Your task to perform on an android device: open app "PUBG MOBILE" Image 0: 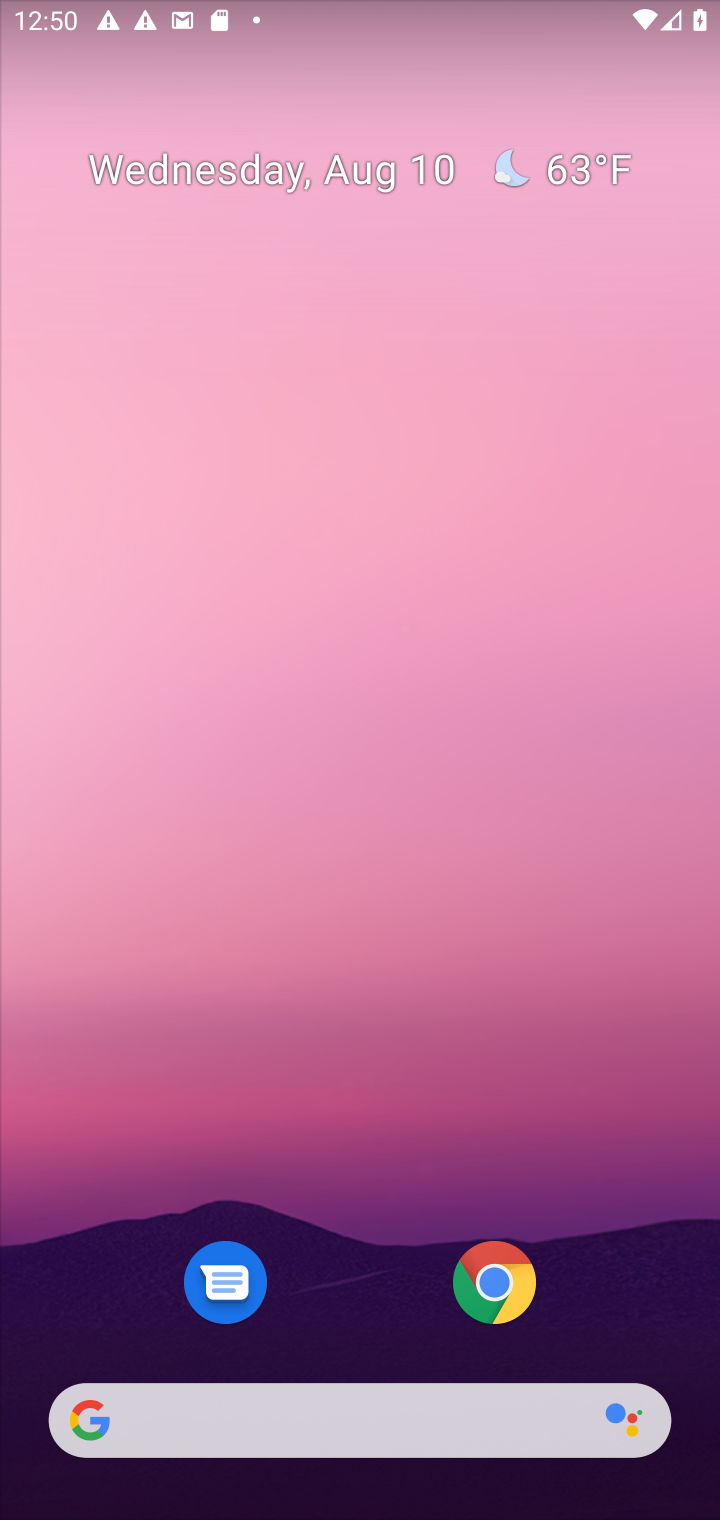
Step 0: drag from (375, 1363) to (288, 535)
Your task to perform on an android device: open app "PUBG MOBILE" Image 1: 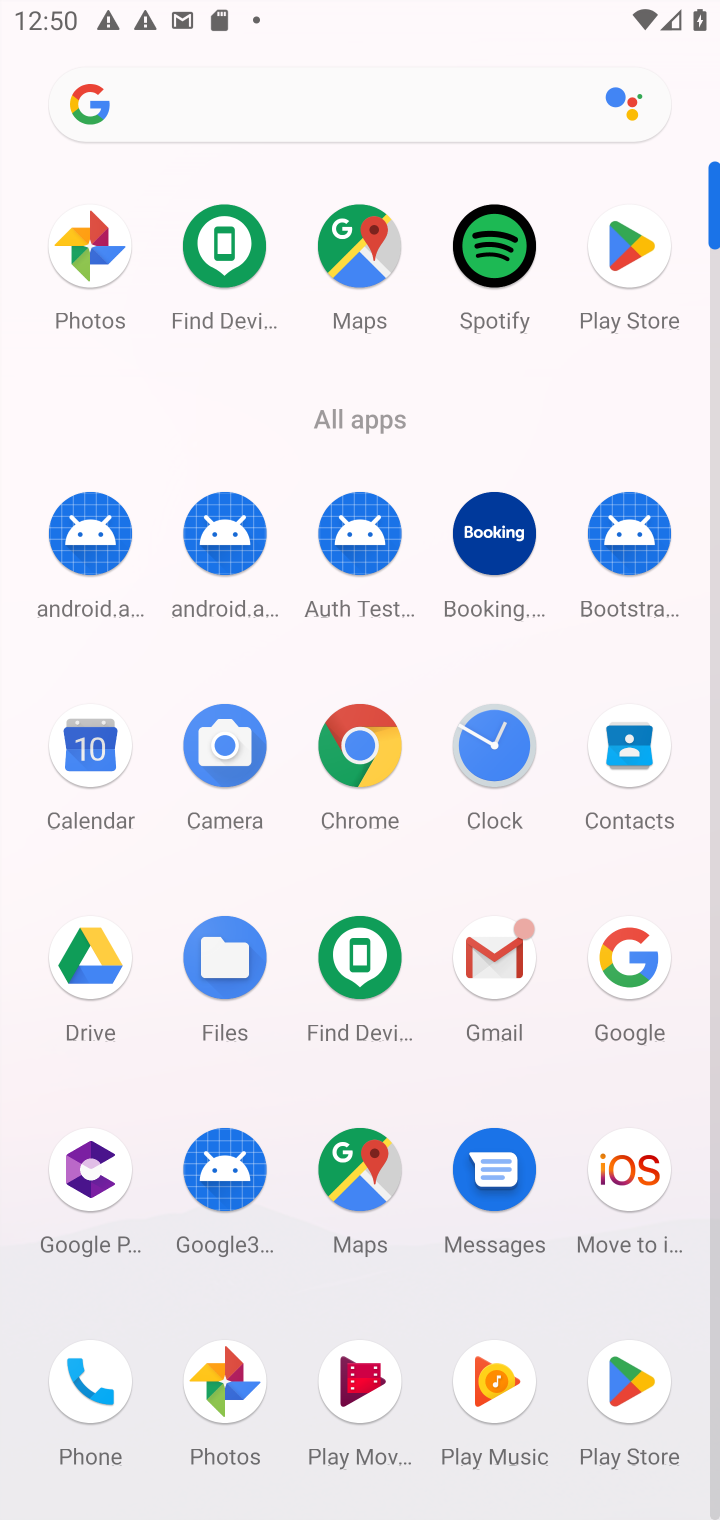
Step 1: click (355, 754)
Your task to perform on an android device: open app "PUBG MOBILE" Image 2: 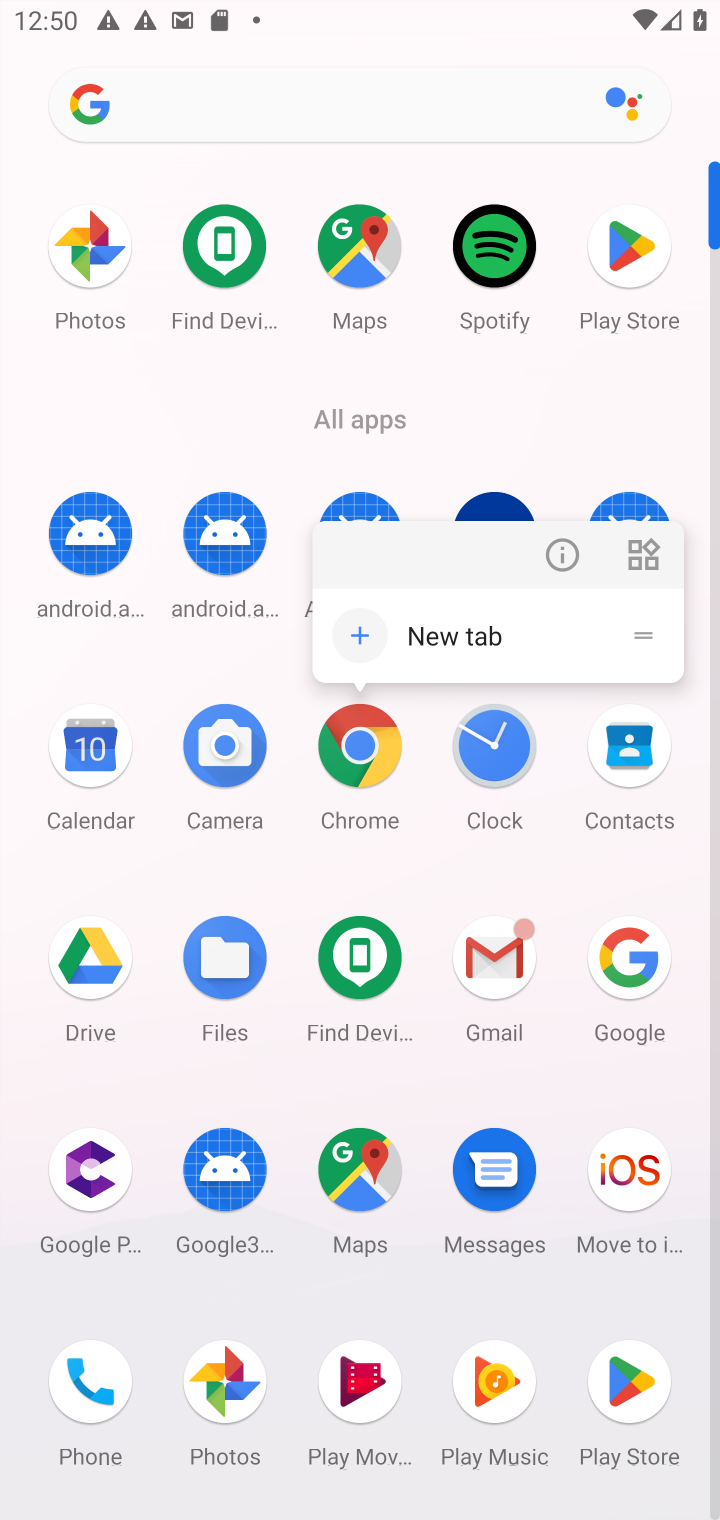
Step 2: press home button
Your task to perform on an android device: open app "PUBG MOBILE" Image 3: 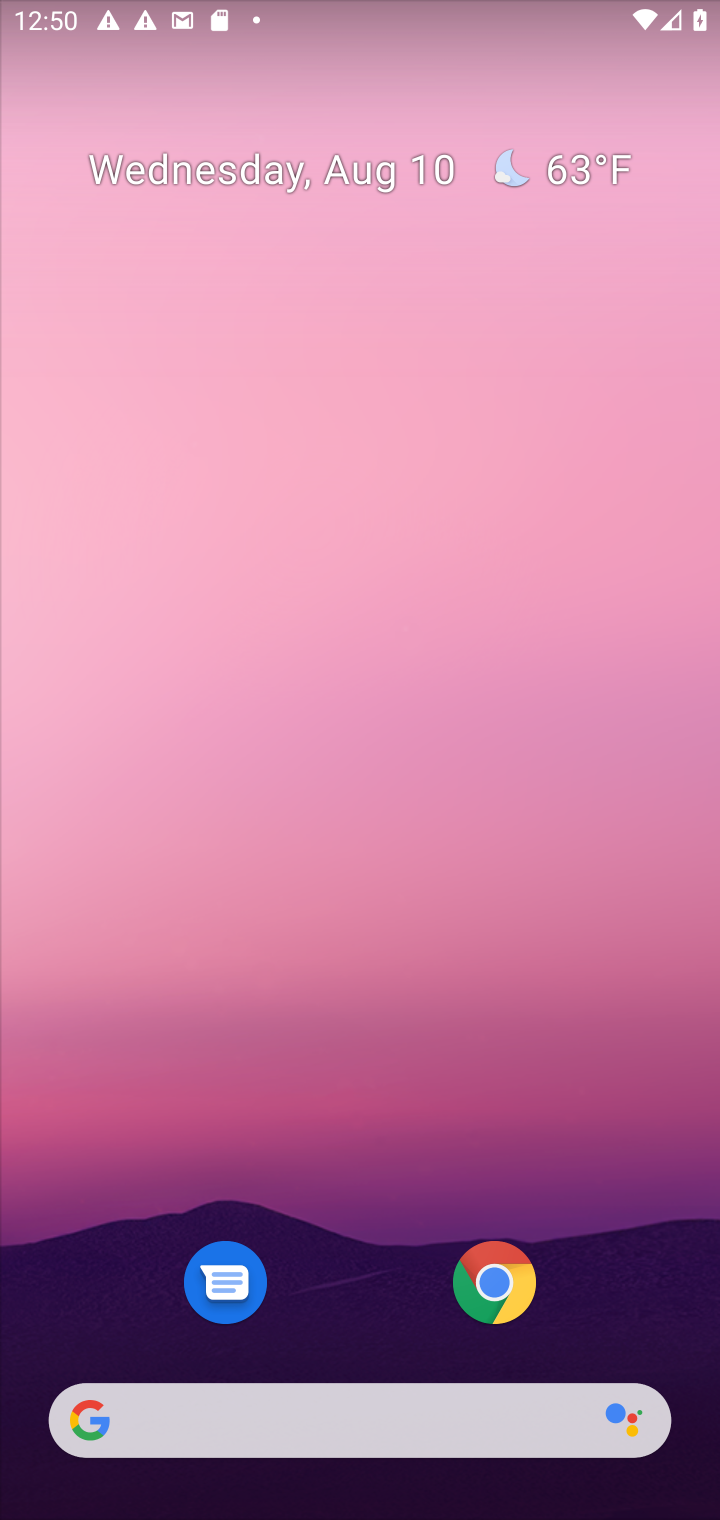
Step 3: drag from (325, 1360) to (299, 379)
Your task to perform on an android device: open app "PUBG MOBILE" Image 4: 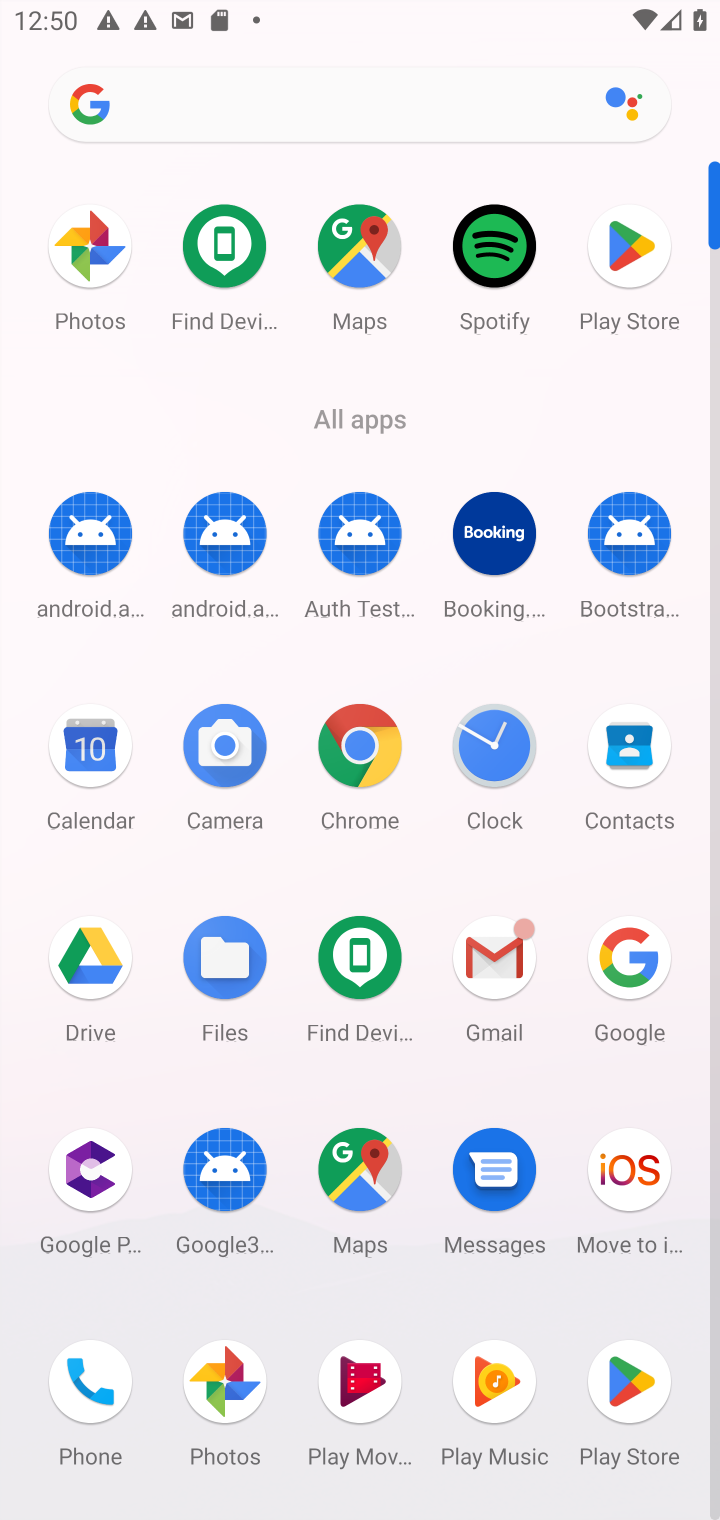
Step 4: drag from (244, 1251) to (351, 242)
Your task to perform on an android device: open app "PUBG MOBILE" Image 5: 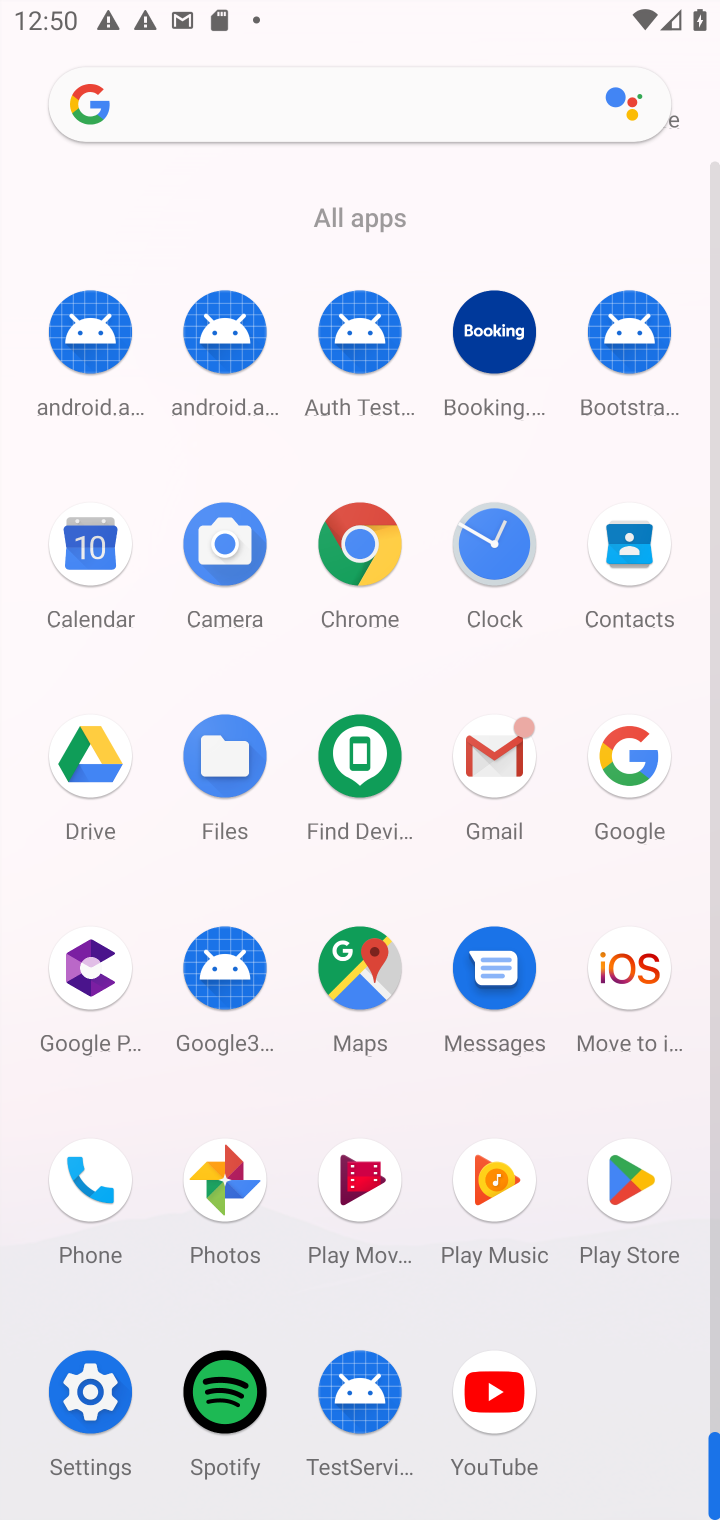
Step 5: click (620, 1144)
Your task to perform on an android device: open app "PUBG MOBILE" Image 6: 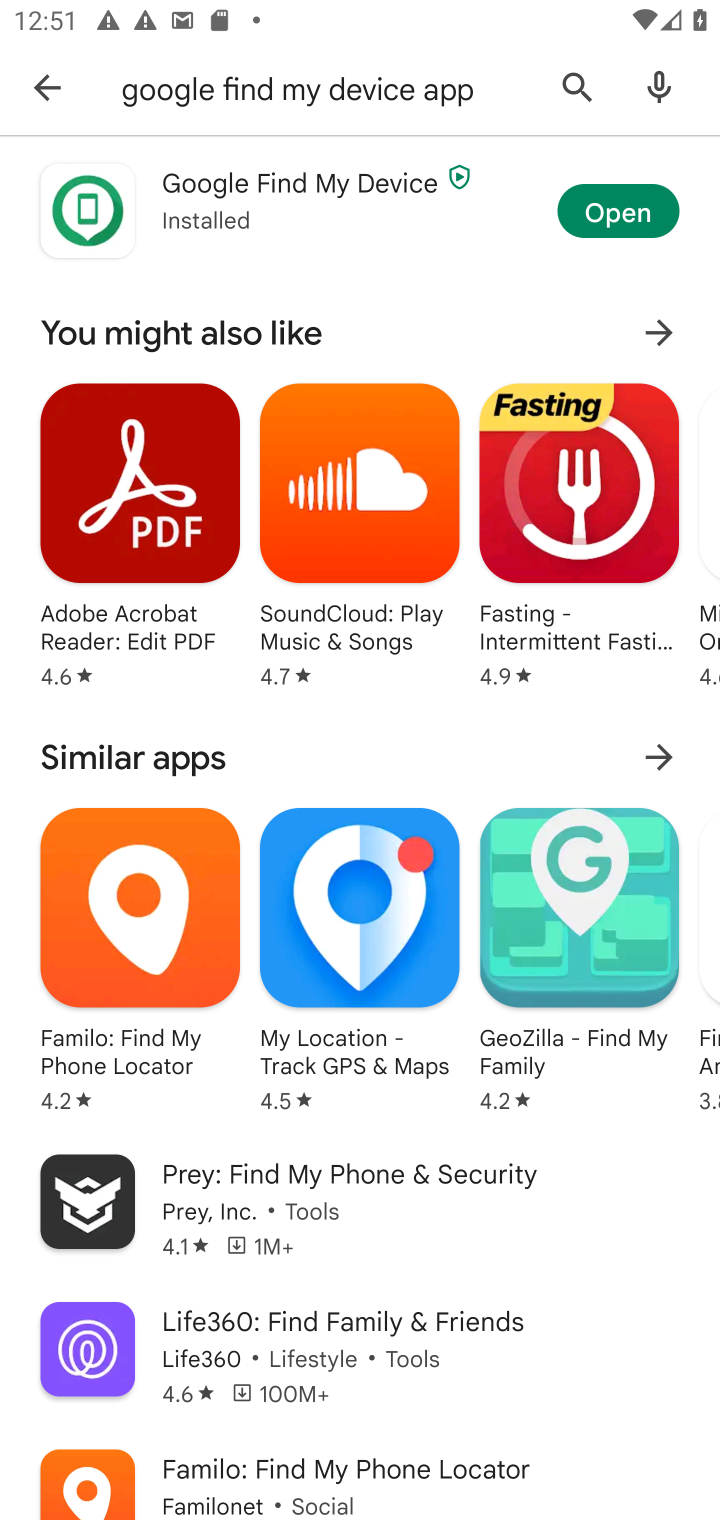
Step 6: click (44, 89)
Your task to perform on an android device: open app "PUBG MOBILE" Image 7: 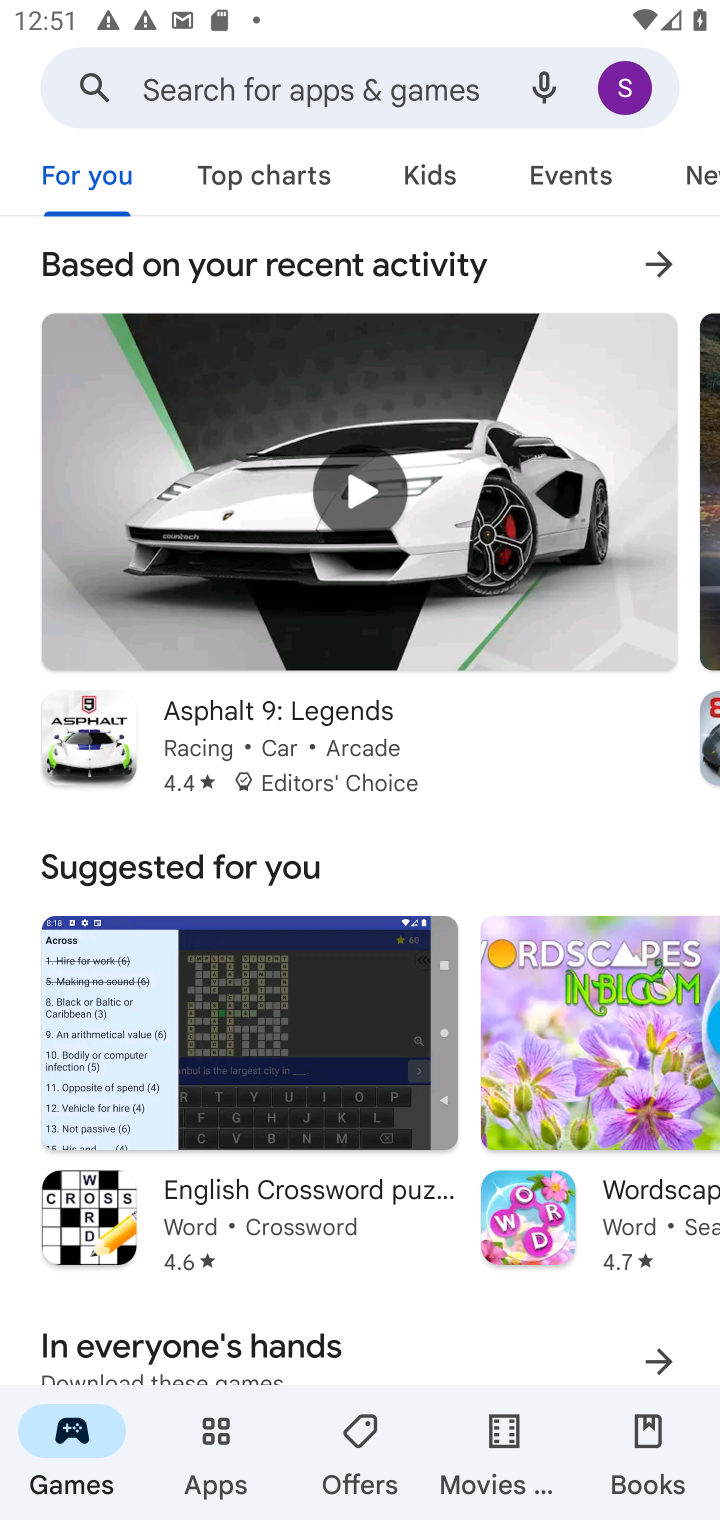
Step 7: click (343, 89)
Your task to perform on an android device: open app "PUBG MOBILE" Image 8: 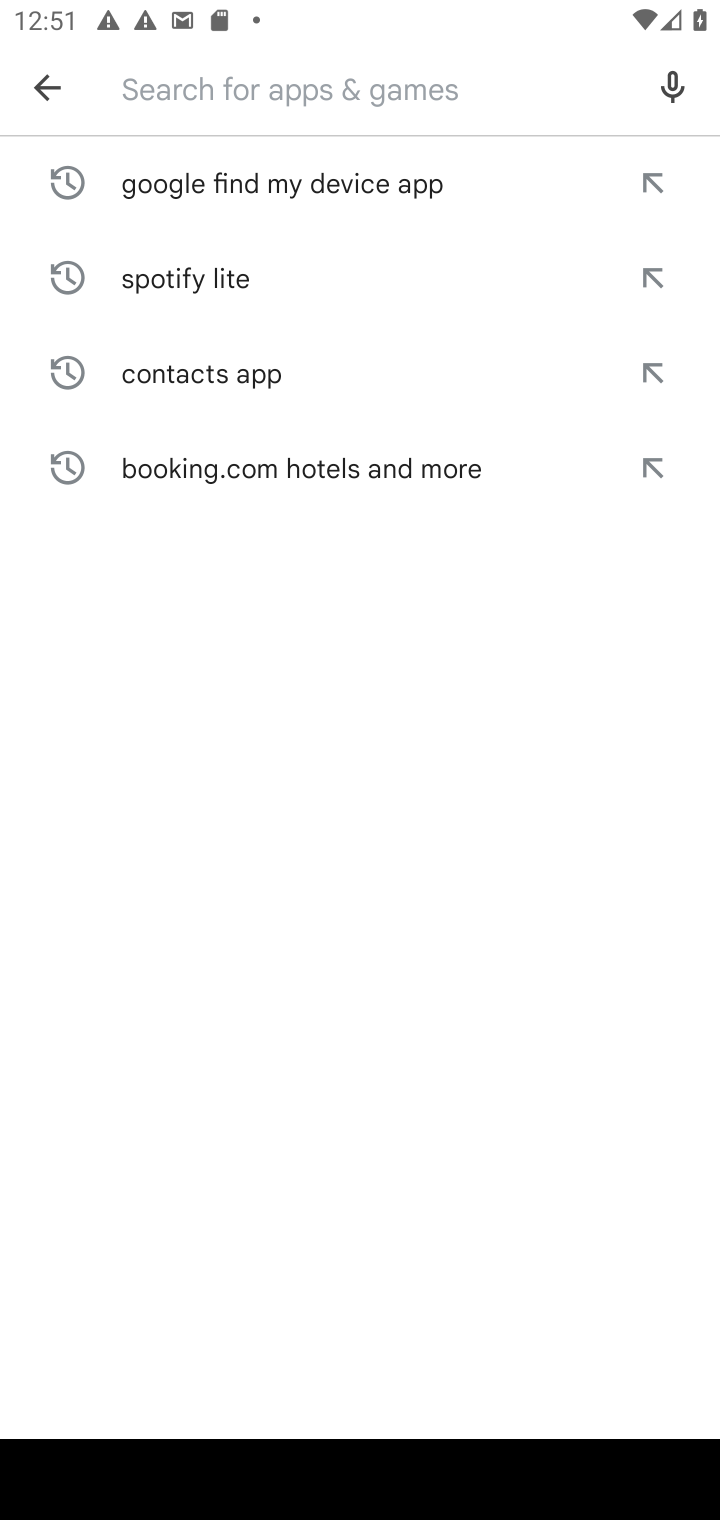
Step 8: type "PUBG MOBILE "
Your task to perform on an android device: open app "PUBG MOBILE" Image 9: 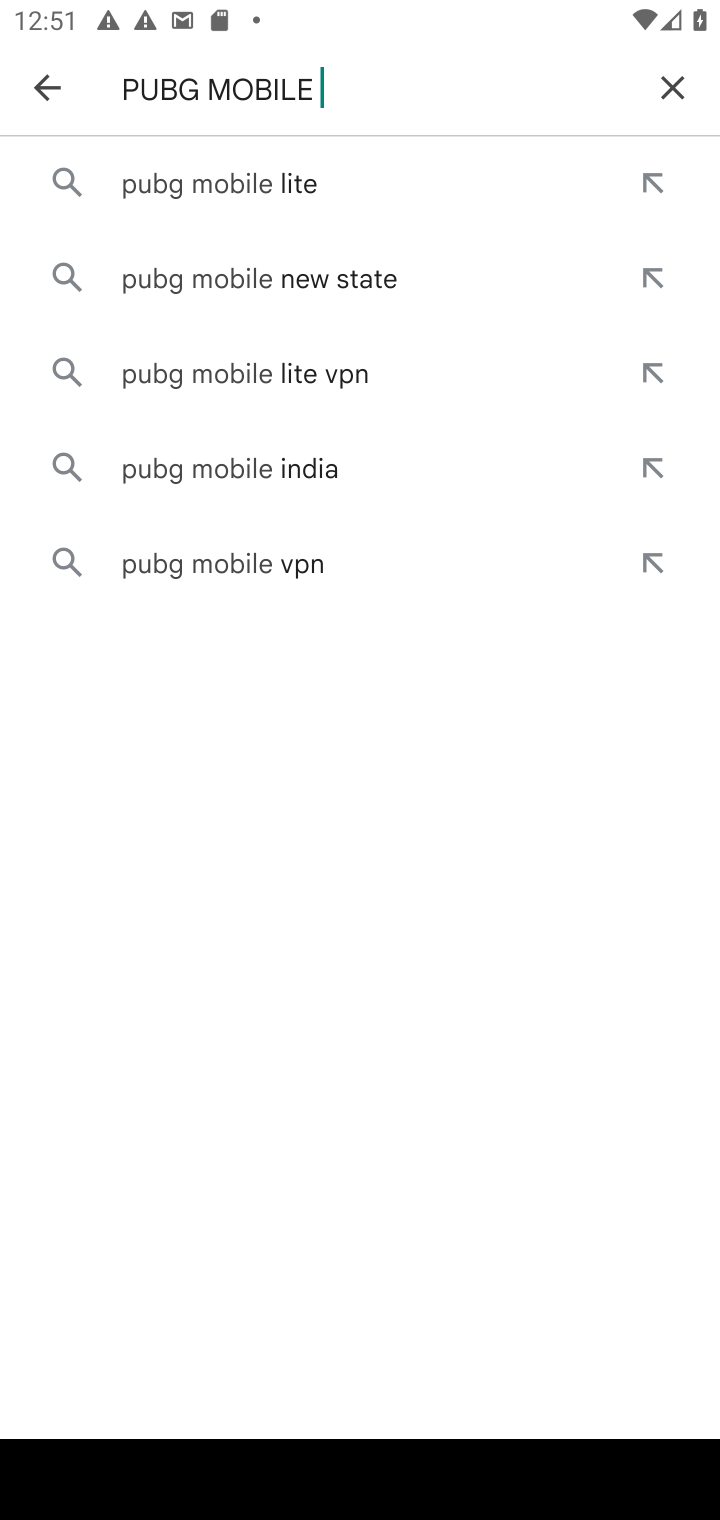
Step 9: click (271, 168)
Your task to perform on an android device: open app "PUBG MOBILE" Image 10: 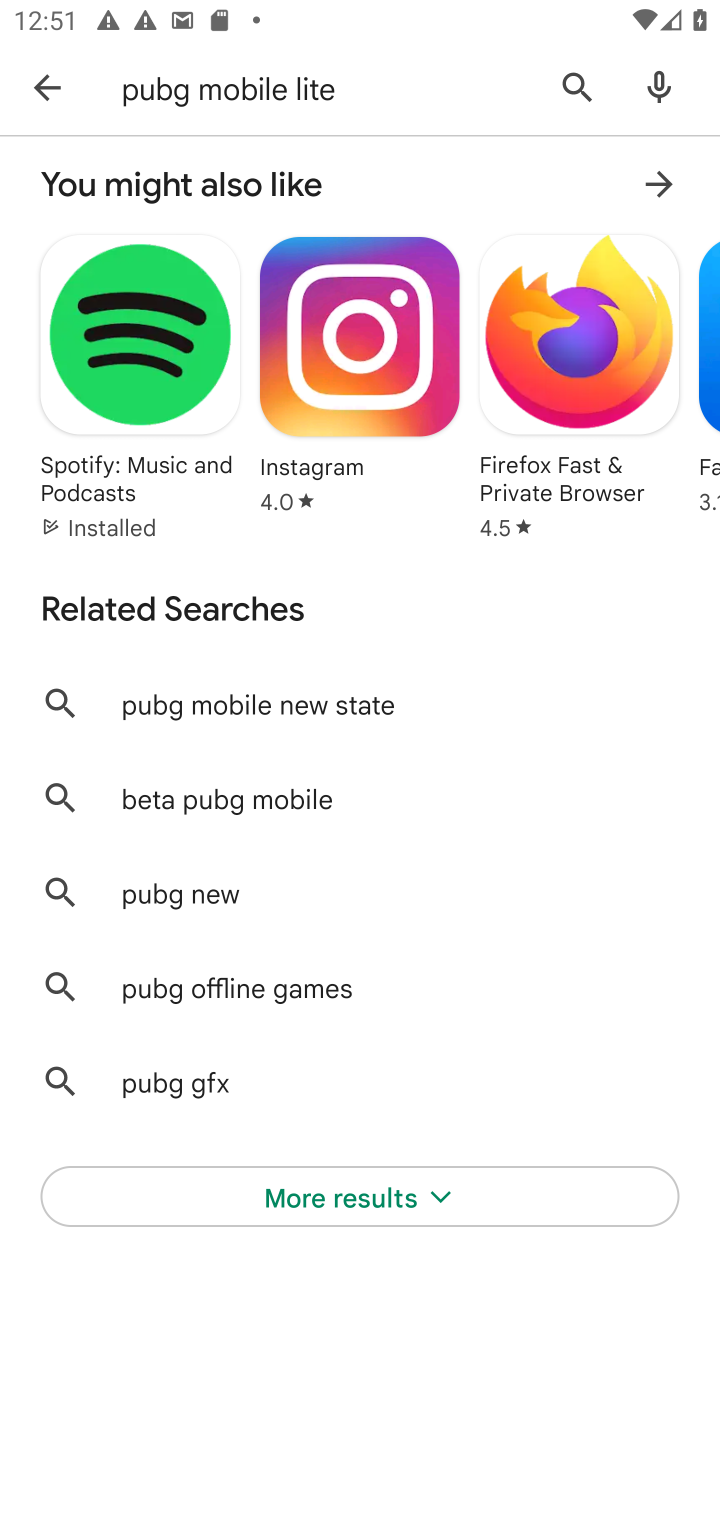
Step 10: click (272, 725)
Your task to perform on an android device: open app "PUBG MOBILE" Image 11: 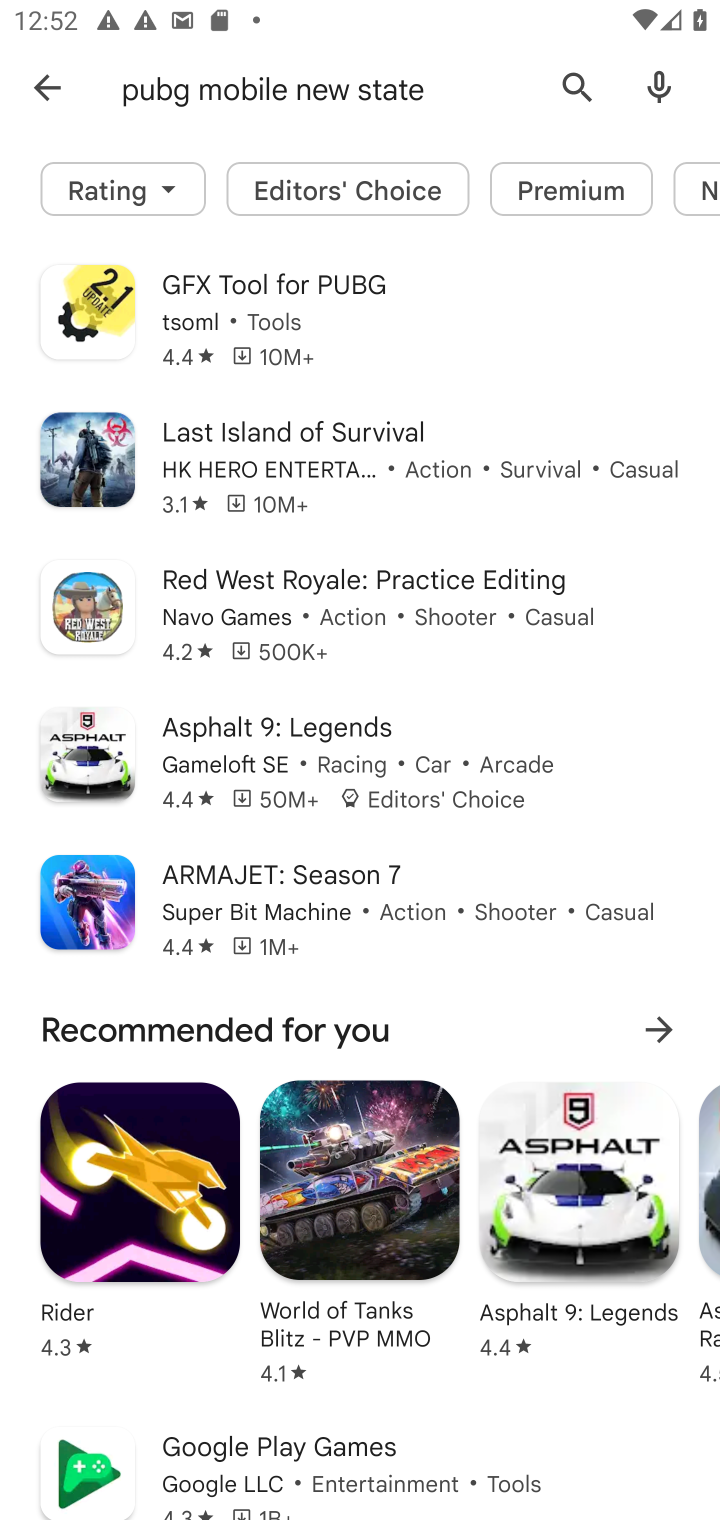
Step 11: click (49, 72)
Your task to perform on an android device: open app "PUBG MOBILE" Image 12: 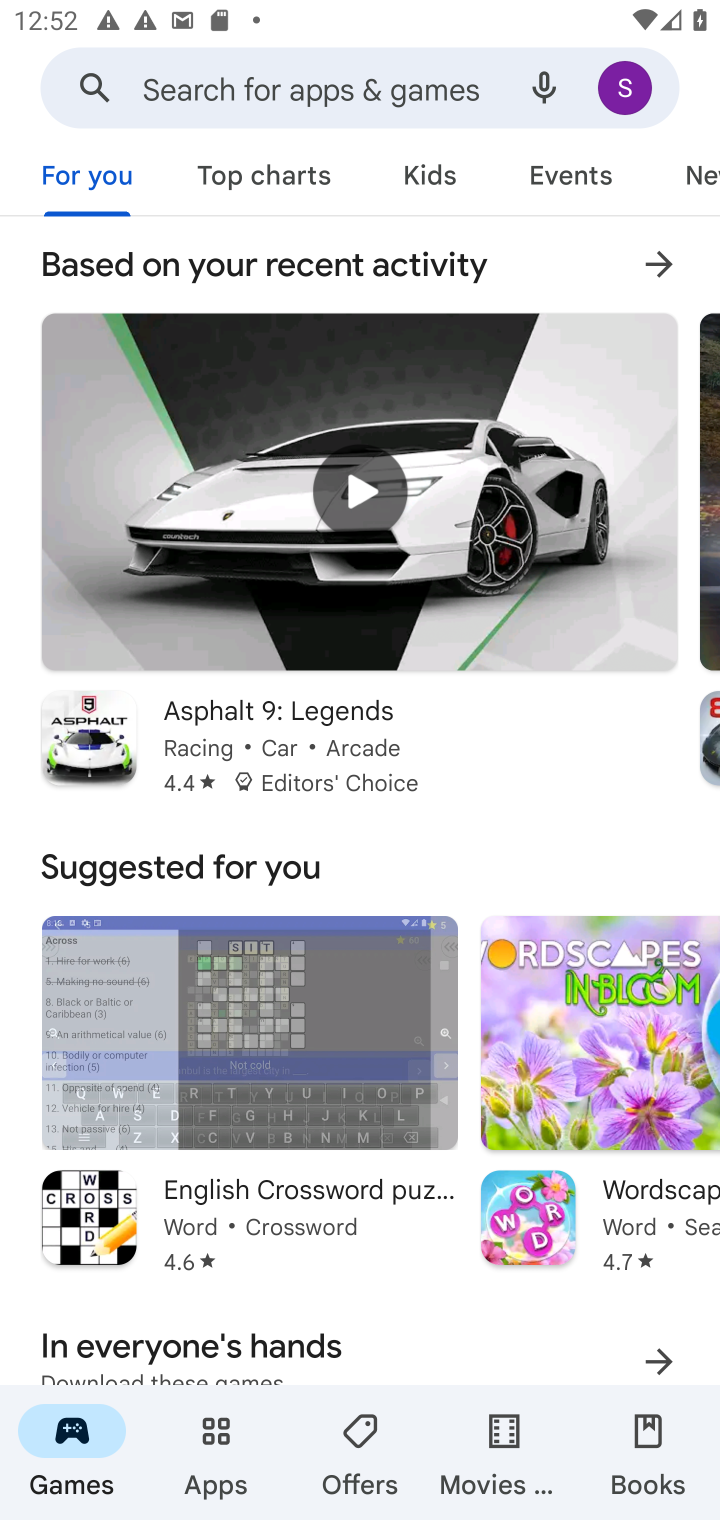
Step 12: click (324, 71)
Your task to perform on an android device: open app "PUBG MOBILE" Image 13: 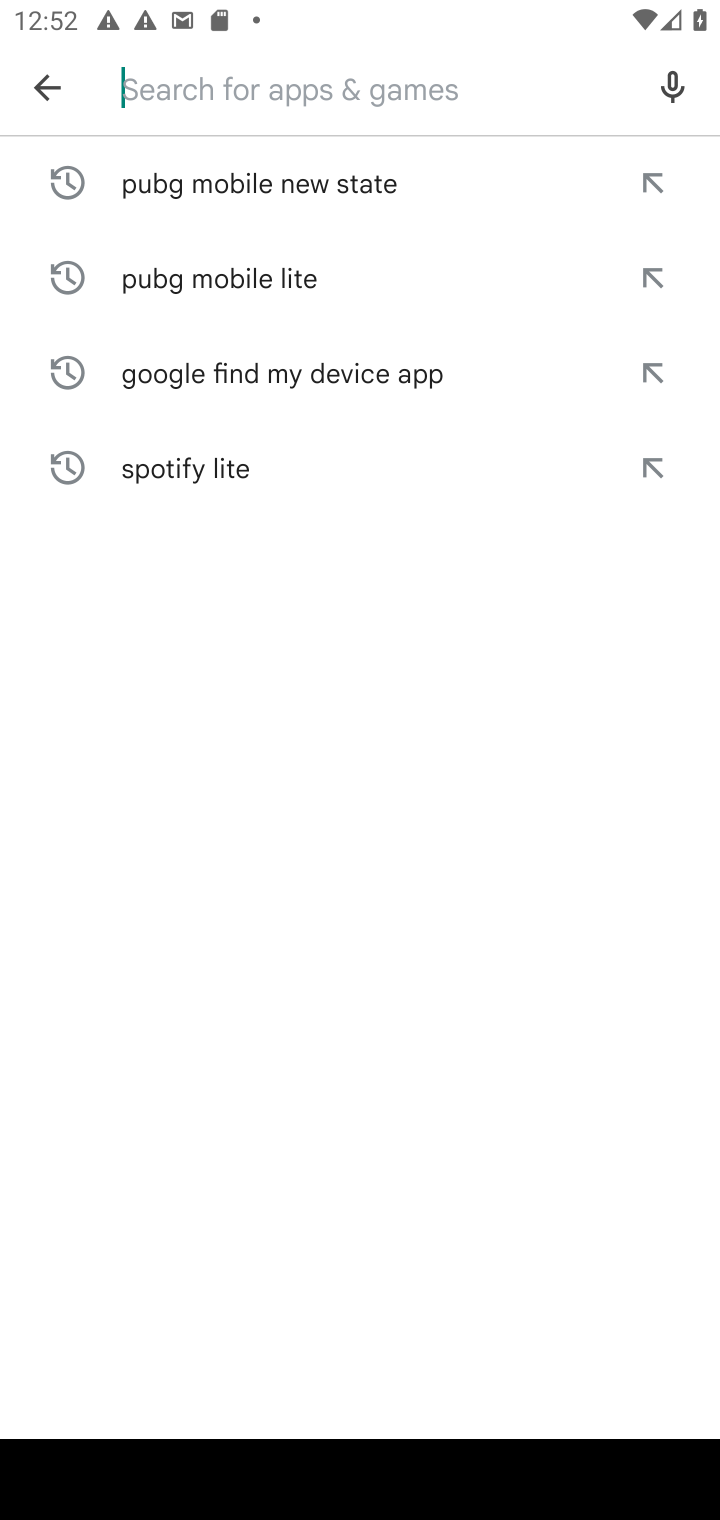
Step 13: type "pubg mobile "
Your task to perform on an android device: open app "PUBG MOBILE" Image 14: 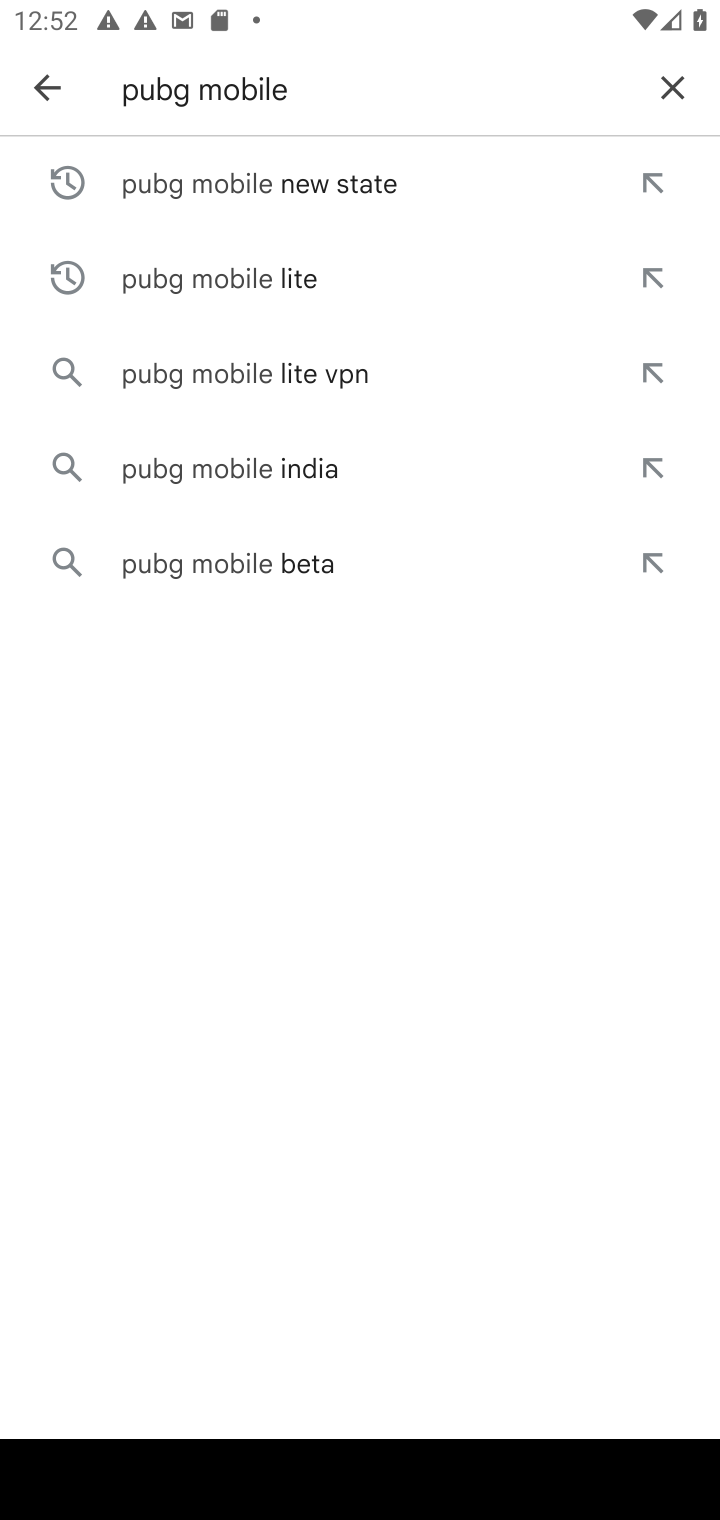
Step 14: click (286, 298)
Your task to perform on an android device: open app "PUBG MOBILE" Image 15: 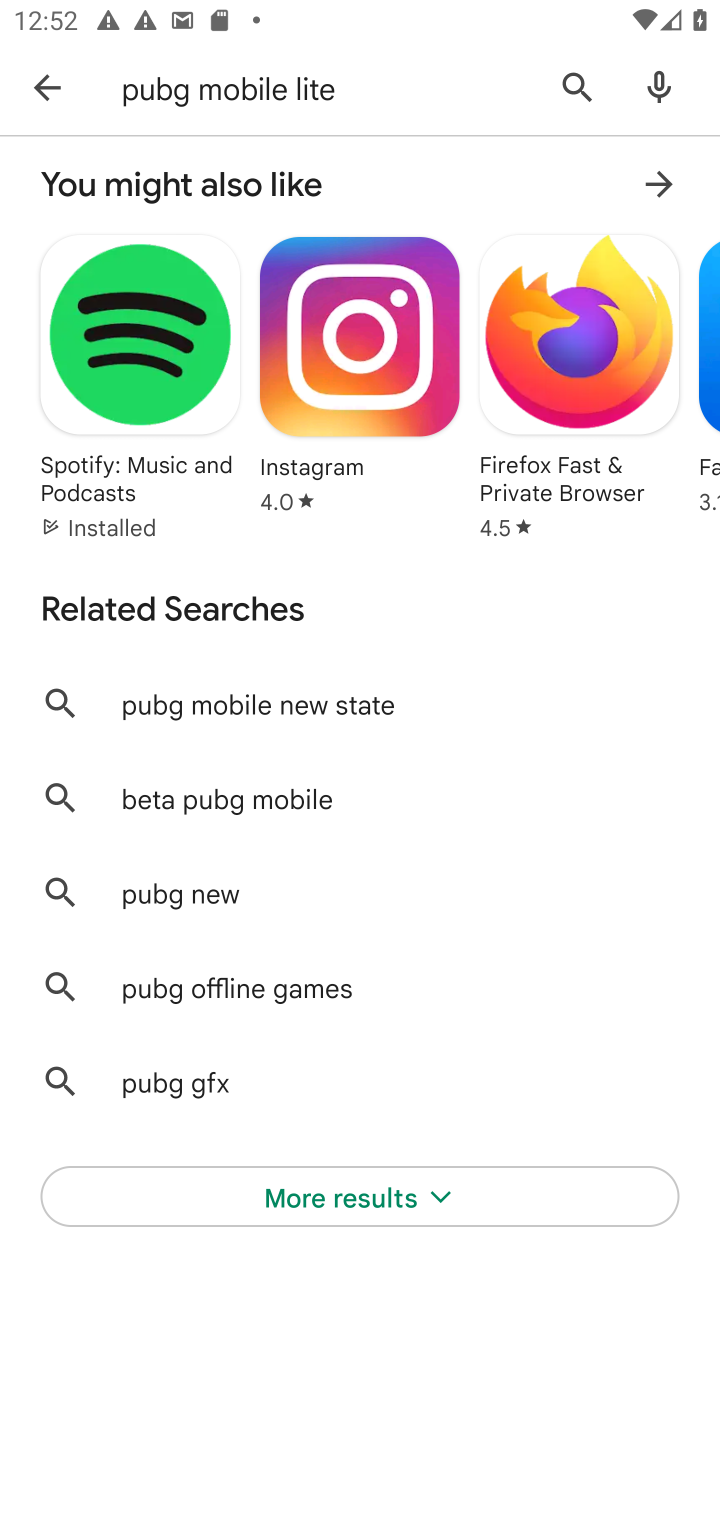
Step 15: task complete